Your task to perform on an android device: turn on showing notifications on the lock screen Image 0: 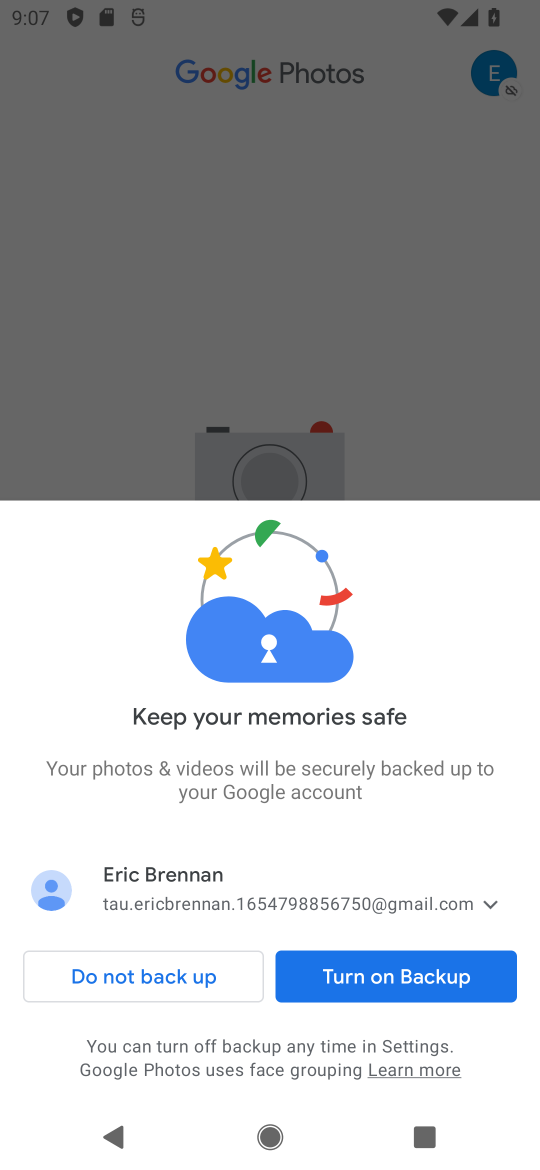
Step 0: press home button
Your task to perform on an android device: turn on showing notifications on the lock screen Image 1: 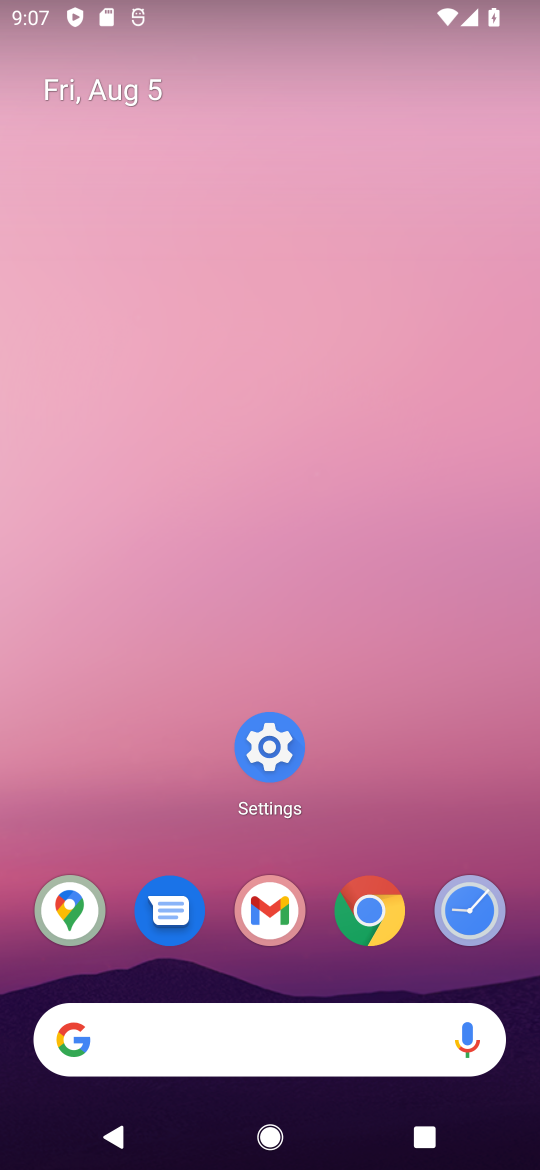
Step 1: click (272, 736)
Your task to perform on an android device: turn on showing notifications on the lock screen Image 2: 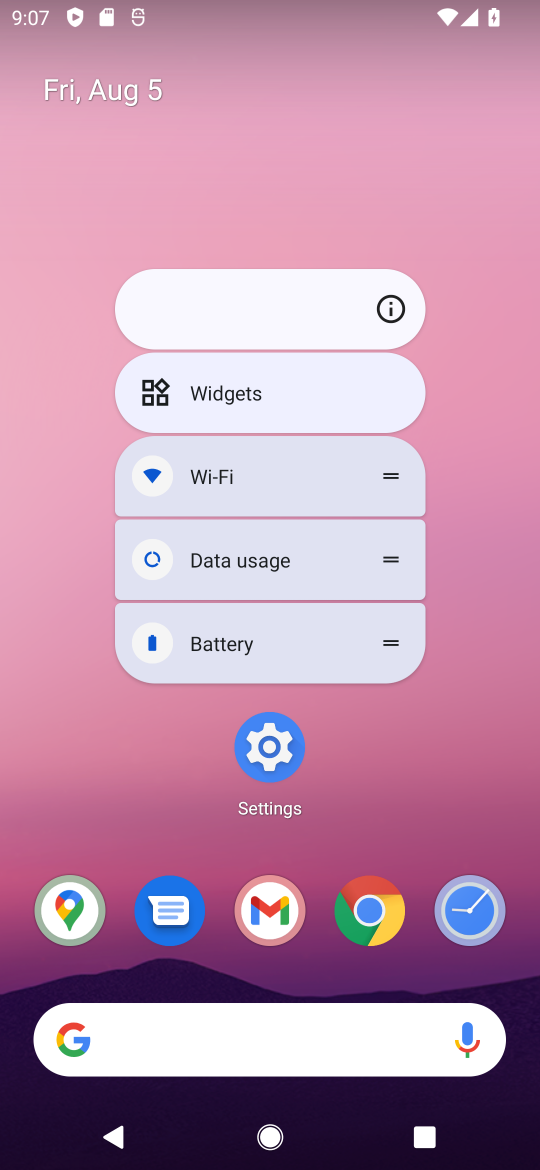
Step 2: click (272, 736)
Your task to perform on an android device: turn on showing notifications on the lock screen Image 3: 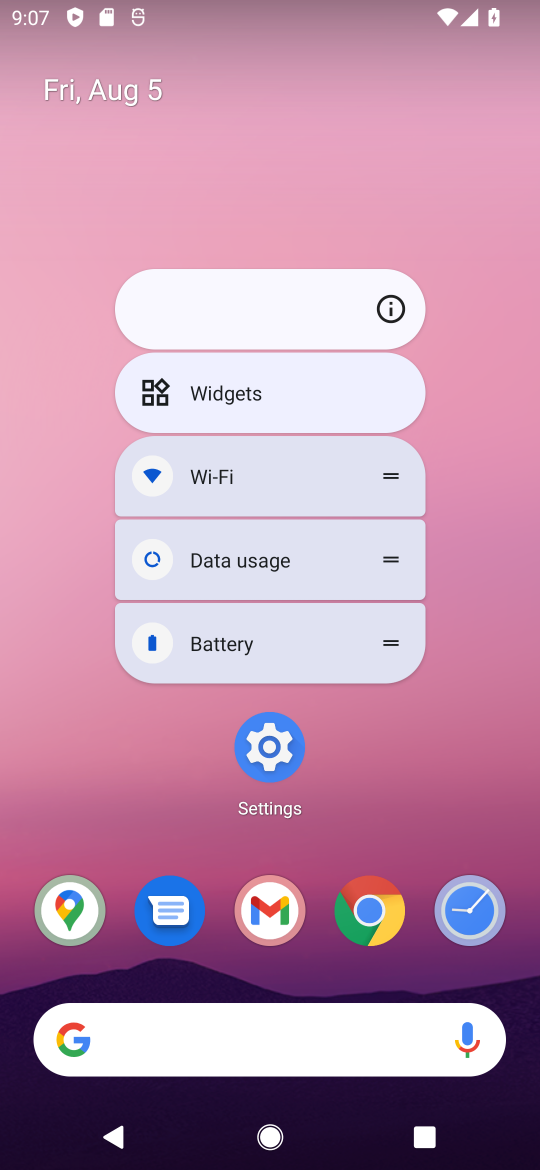
Step 3: click (272, 738)
Your task to perform on an android device: turn on showing notifications on the lock screen Image 4: 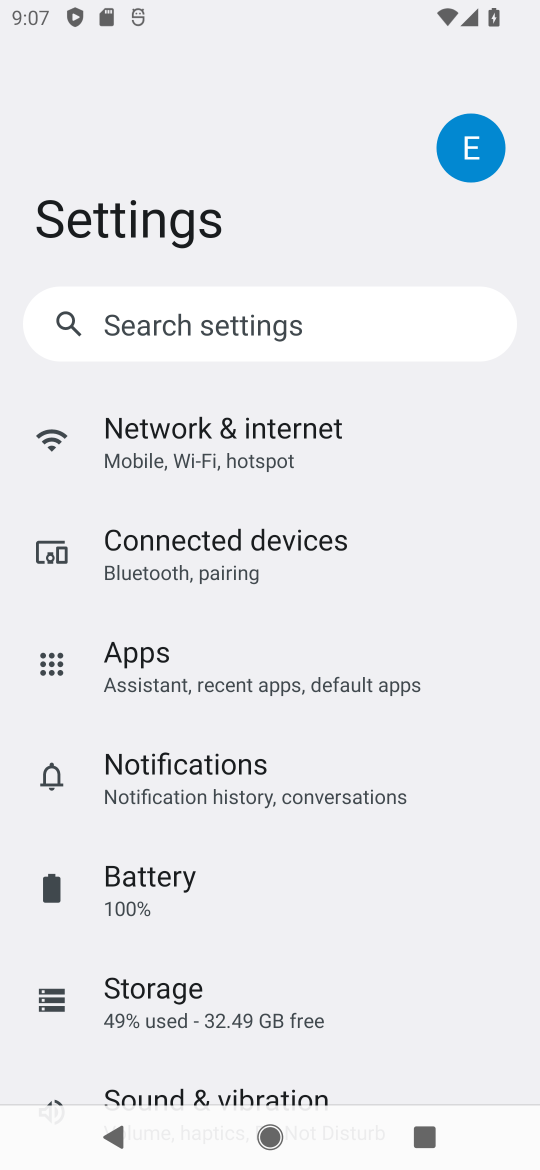
Step 4: click (240, 783)
Your task to perform on an android device: turn on showing notifications on the lock screen Image 5: 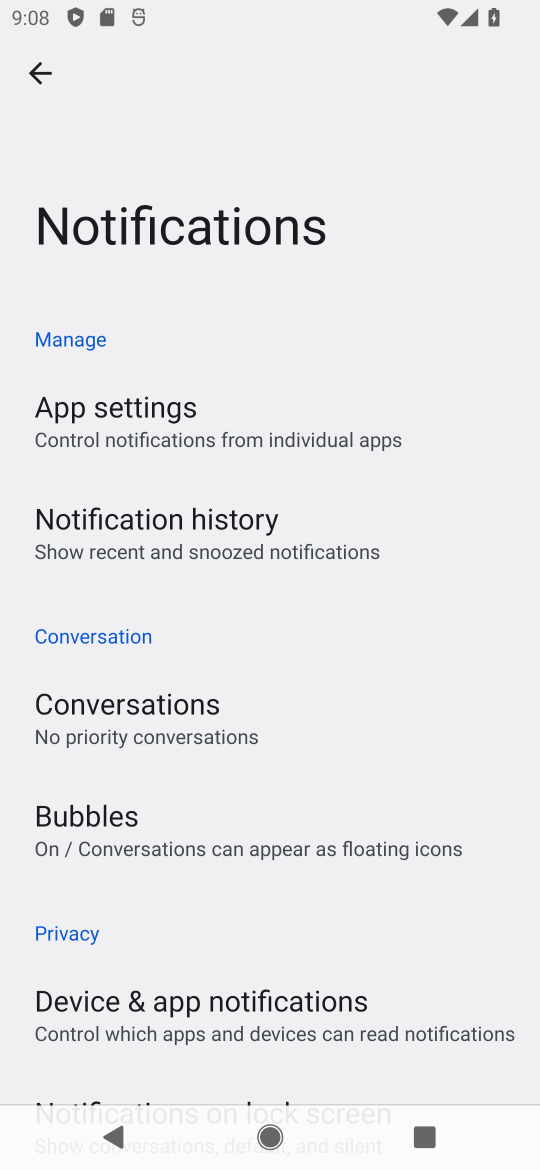
Step 5: drag from (274, 920) to (422, 263)
Your task to perform on an android device: turn on showing notifications on the lock screen Image 6: 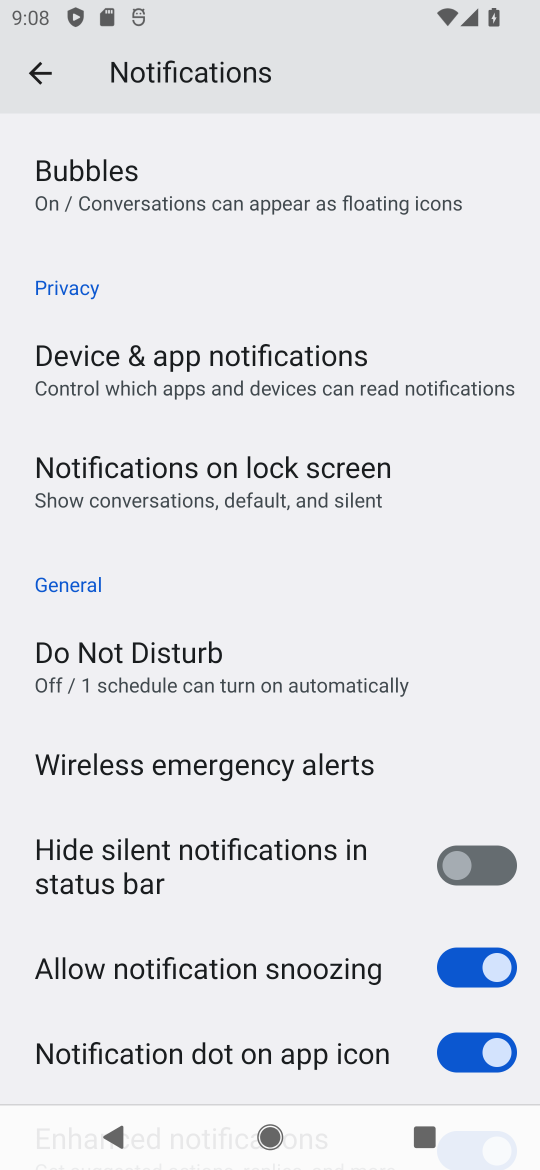
Step 6: click (272, 484)
Your task to perform on an android device: turn on showing notifications on the lock screen Image 7: 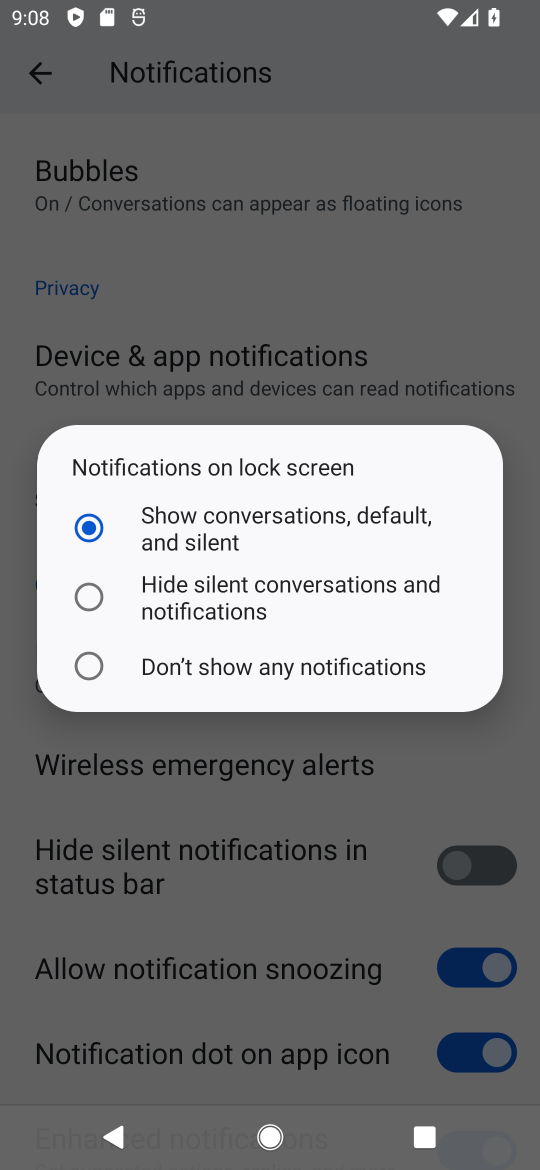
Step 7: task complete